Your task to perform on an android device: toggle wifi Image 0: 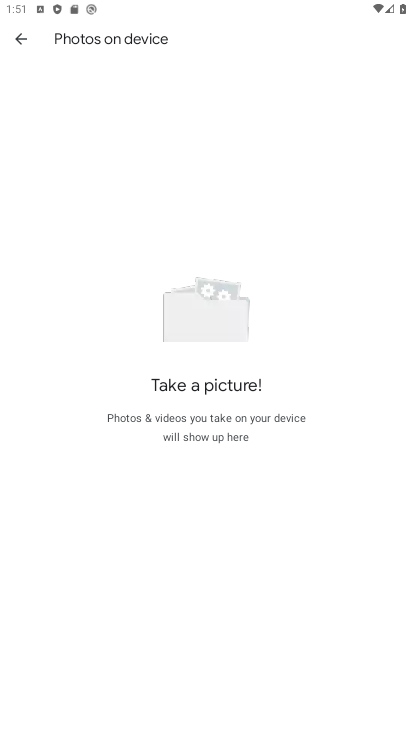
Step 0: press home button
Your task to perform on an android device: toggle wifi Image 1: 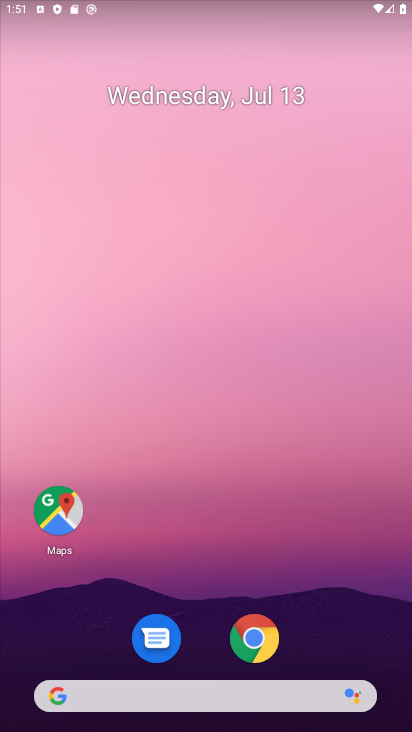
Step 1: drag from (168, 7) to (366, 565)
Your task to perform on an android device: toggle wifi Image 2: 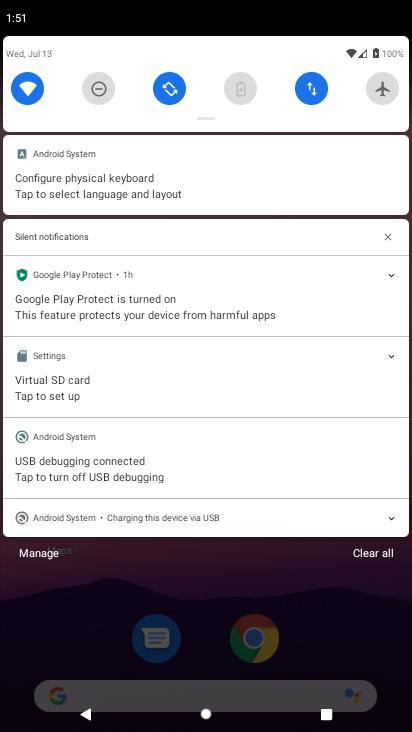
Step 2: drag from (282, 725) to (410, 39)
Your task to perform on an android device: toggle wifi Image 3: 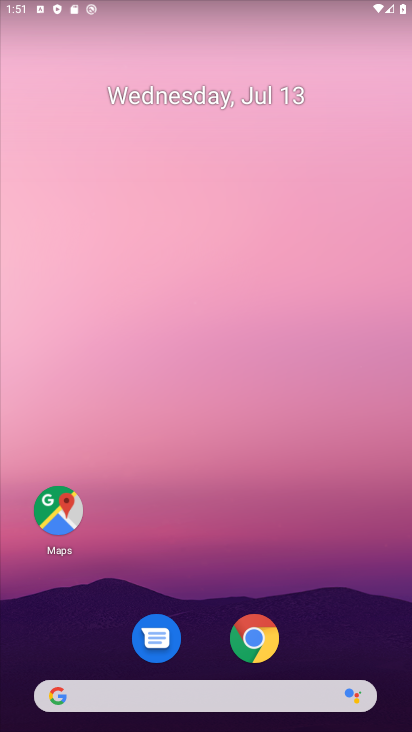
Step 3: drag from (242, 712) to (312, 33)
Your task to perform on an android device: toggle wifi Image 4: 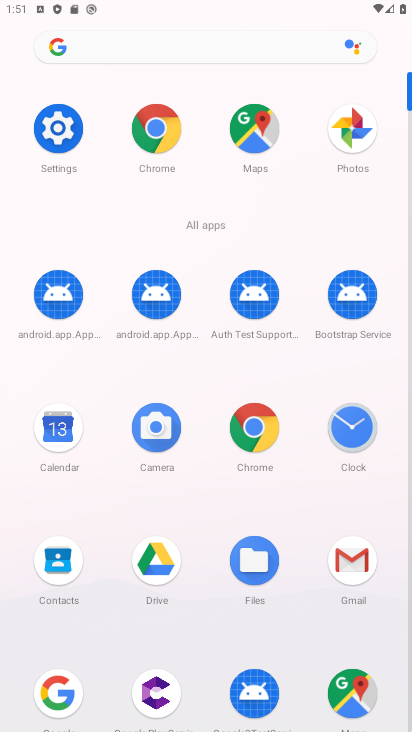
Step 4: click (60, 129)
Your task to perform on an android device: toggle wifi Image 5: 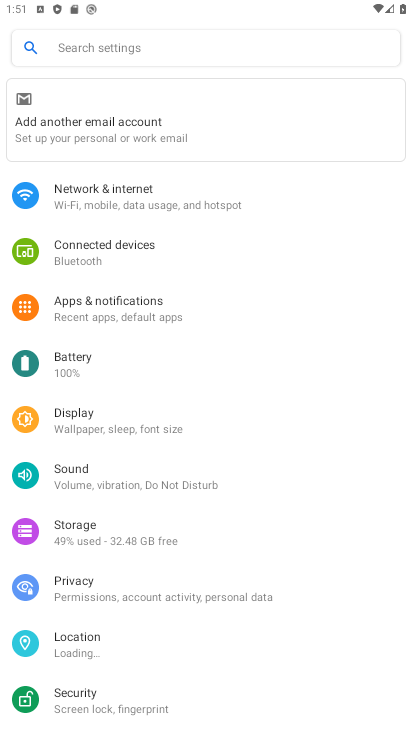
Step 5: click (230, 213)
Your task to perform on an android device: toggle wifi Image 6: 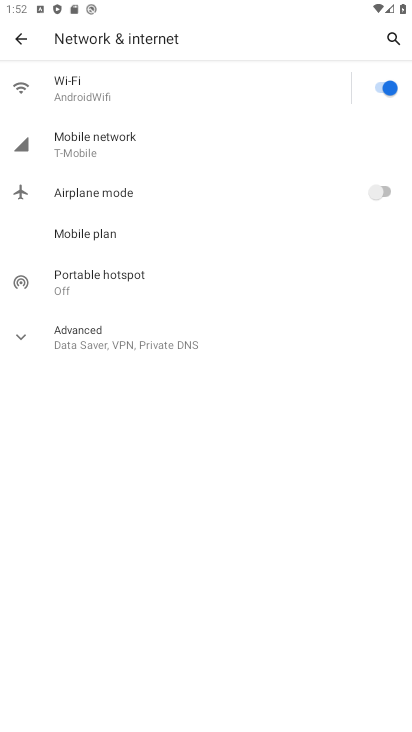
Step 6: click (388, 84)
Your task to perform on an android device: toggle wifi Image 7: 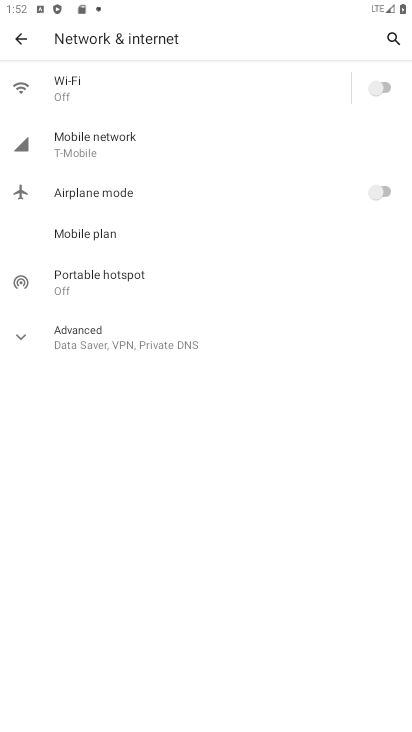
Step 7: task complete